Your task to perform on an android device: manage bookmarks in the chrome app Image 0: 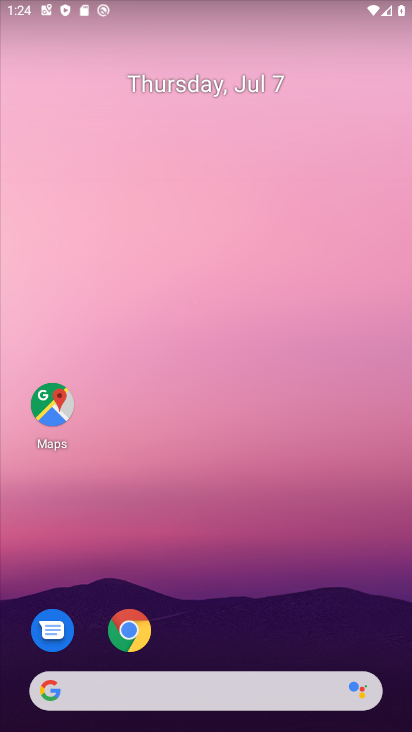
Step 0: drag from (301, 545) to (411, 3)
Your task to perform on an android device: manage bookmarks in the chrome app Image 1: 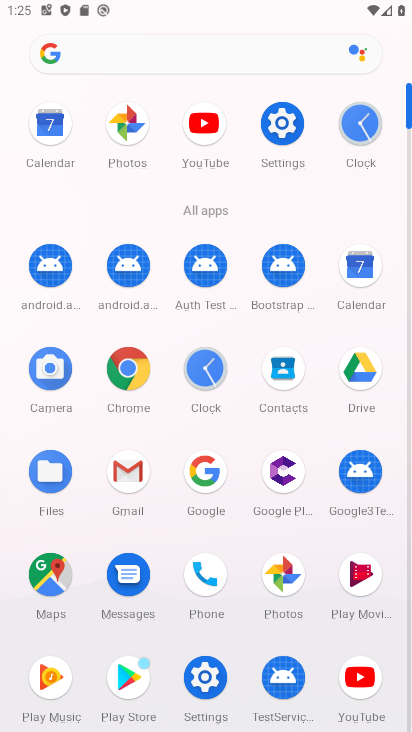
Step 1: click (129, 371)
Your task to perform on an android device: manage bookmarks in the chrome app Image 2: 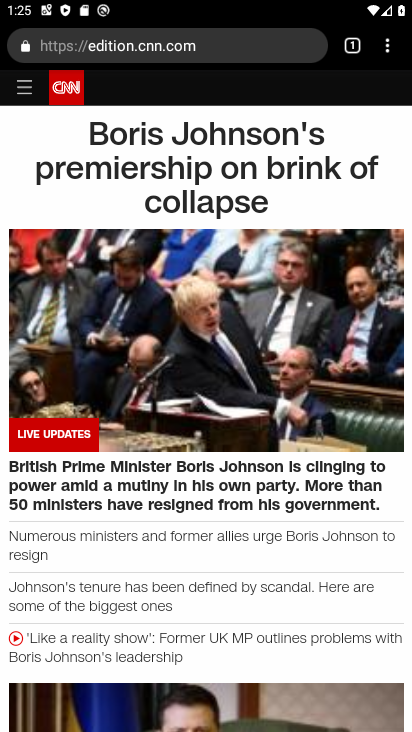
Step 2: click (396, 41)
Your task to perform on an android device: manage bookmarks in the chrome app Image 3: 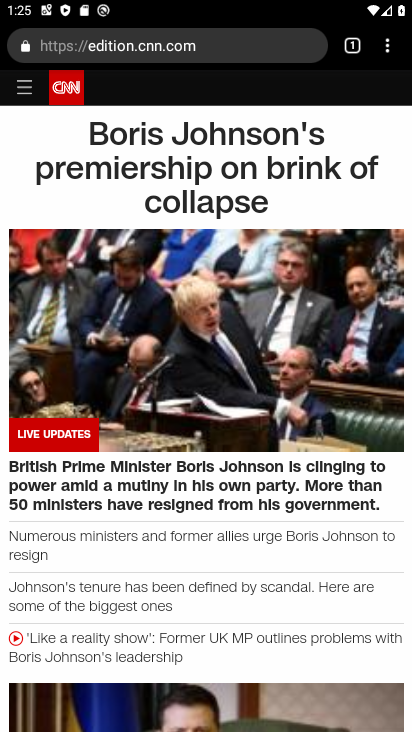
Step 3: click (383, 53)
Your task to perform on an android device: manage bookmarks in the chrome app Image 4: 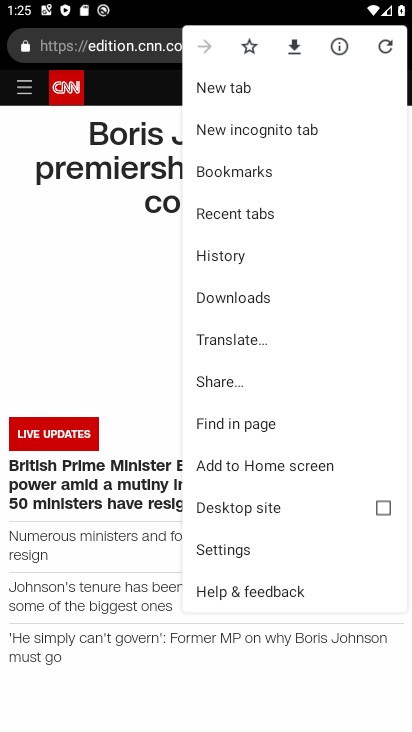
Step 4: click (331, 174)
Your task to perform on an android device: manage bookmarks in the chrome app Image 5: 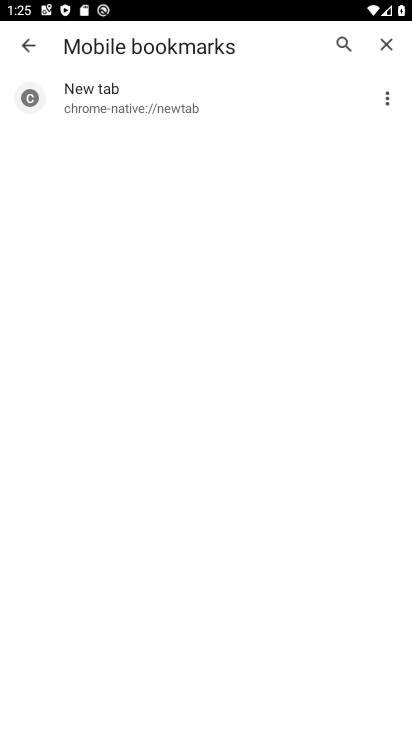
Step 5: click (236, 111)
Your task to perform on an android device: manage bookmarks in the chrome app Image 6: 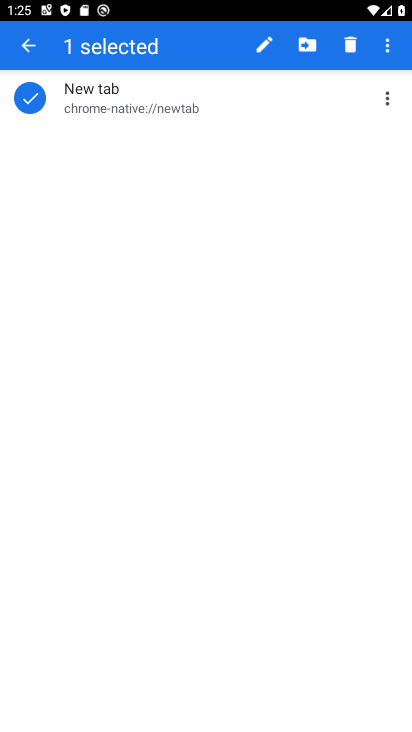
Step 6: click (309, 44)
Your task to perform on an android device: manage bookmarks in the chrome app Image 7: 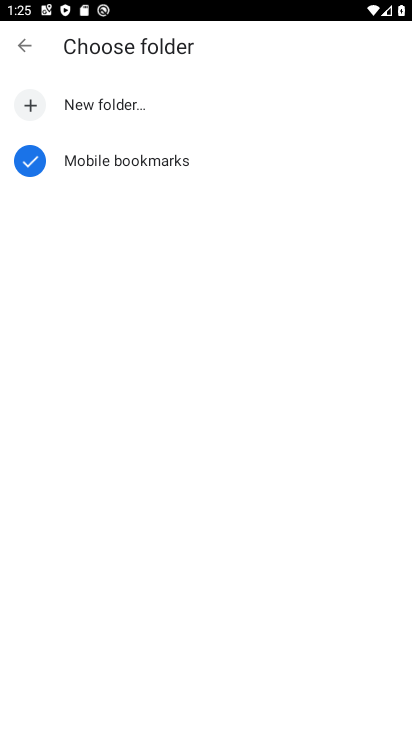
Step 7: click (194, 106)
Your task to perform on an android device: manage bookmarks in the chrome app Image 8: 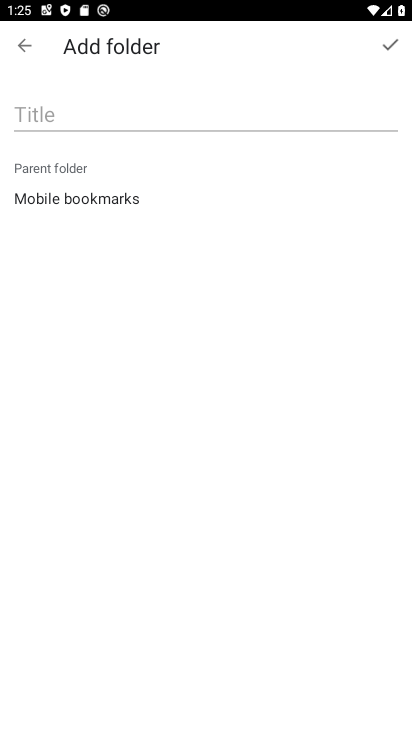
Step 8: click (207, 107)
Your task to perform on an android device: manage bookmarks in the chrome app Image 9: 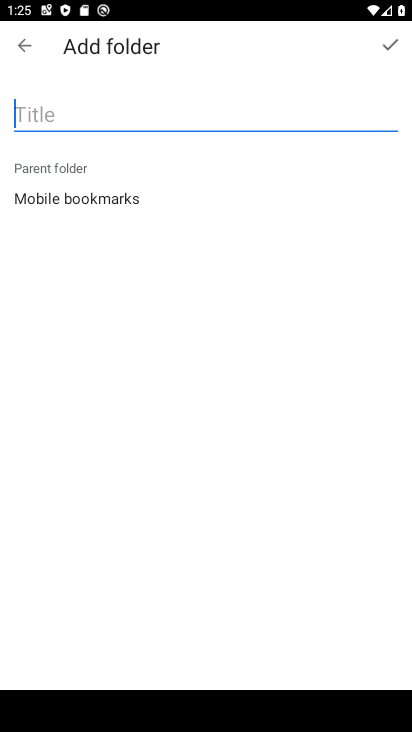
Step 9: type "ni"
Your task to perform on an android device: manage bookmarks in the chrome app Image 10: 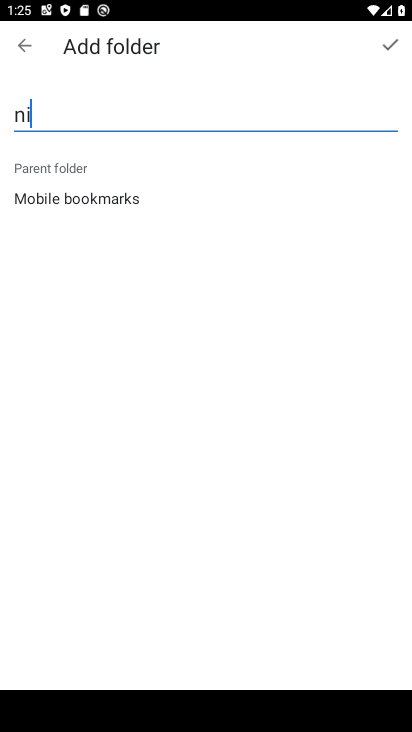
Step 10: click (396, 46)
Your task to perform on an android device: manage bookmarks in the chrome app Image 11: 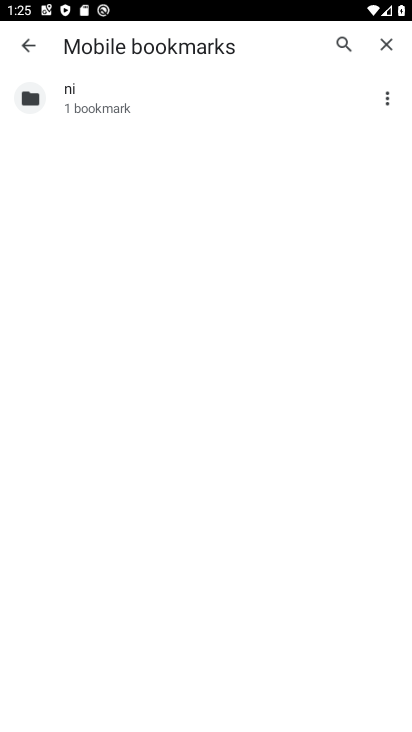
Step 11: task complete